Your task to perform on an android device: Go to location settings Image 0: 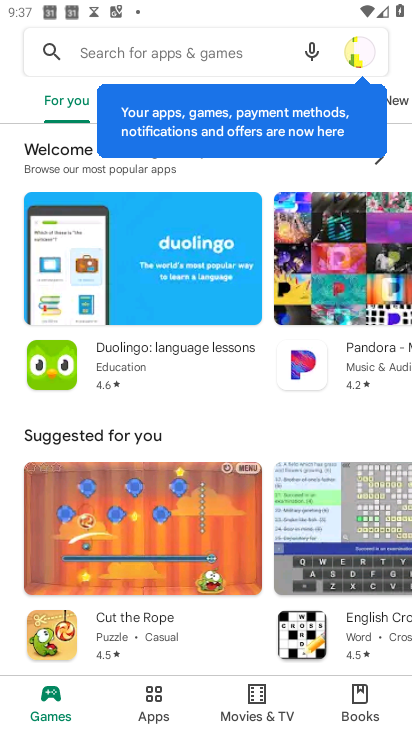
Step 0: task complete